Your task to perform on an android device: Open calendar and show me the fourth week of next month Image 0: 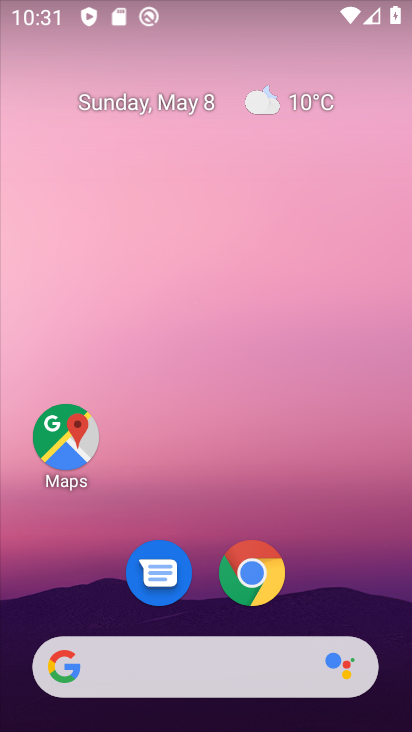
Step 0: drag from (370, 408) to (371, 69)
Your task to perform on an android device: Open calendar and show me the fourth week of next month Image 1: 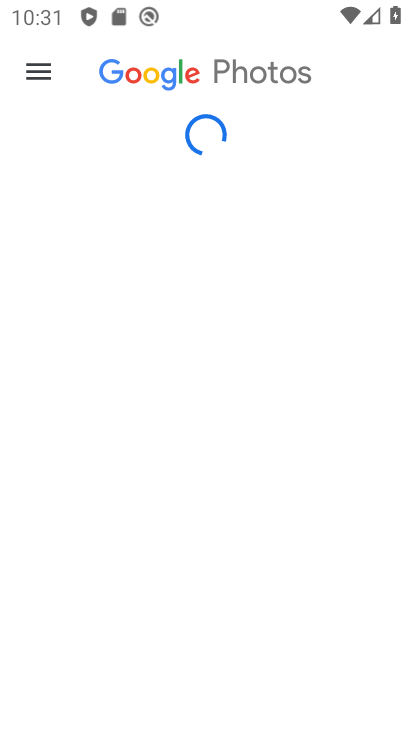
Step 1: press home button
Your task to perform on an android device: Open calendar and show me the fourth week of next month Image 2: 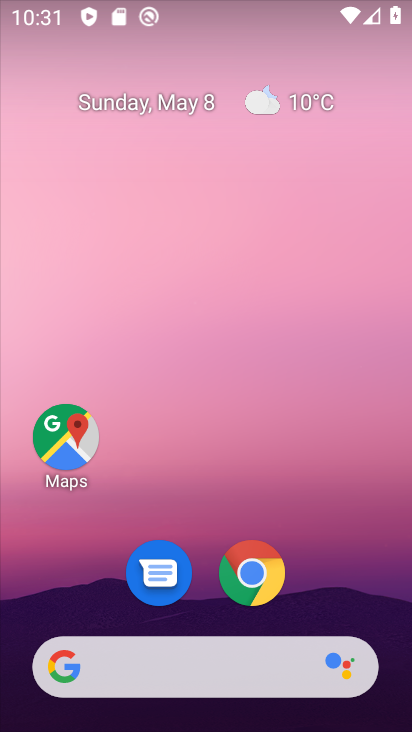
Step 2: drag from (328, 598) to (328, 142)
Your task to perform on an android device: Open calendar and show me the fourth week of next month Image 3: 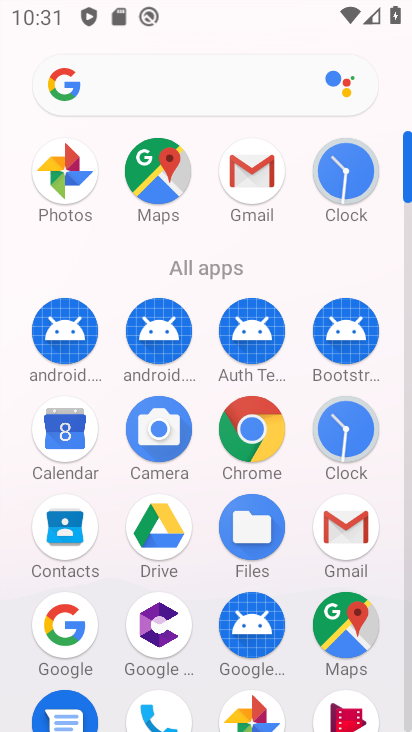
Step 3: click (54, 409)
Your task to perform on an android device: Open calendar and show me the fourth week of next month Image 4: 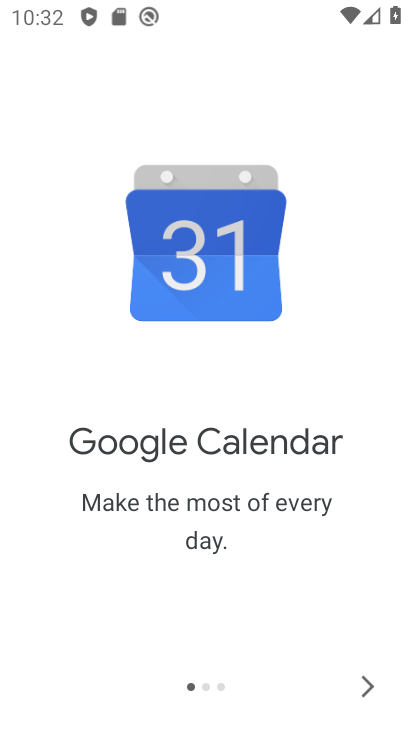
Step 4: click (362, 686)
Your task to perform on an android device: Open calendar and show me the fourth week of next month Image 5: 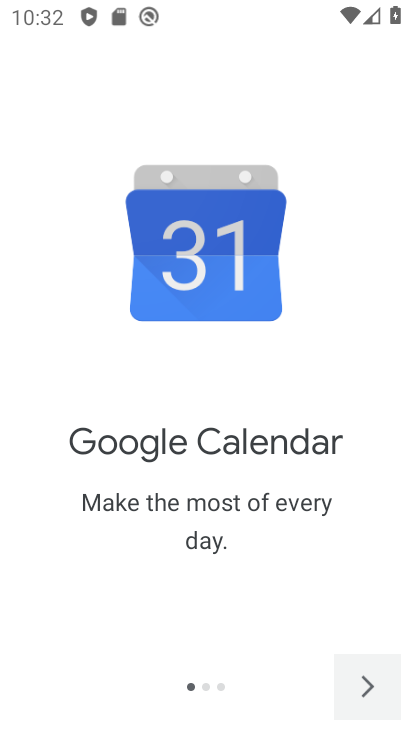
Step 5: click (362, 686)
Your task to perform on an android device: Open calendar and show me the fourth week of next month Image 6: 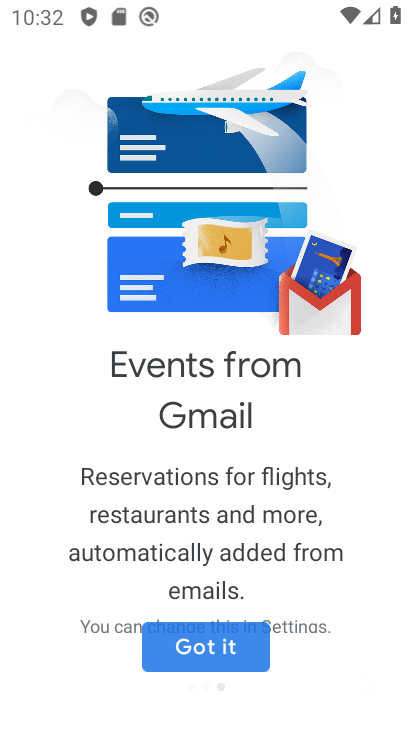
Step 6: click (362, 686)
Your task to perform on an android device: Open calendar and show me the fourth week of next month Image 7: 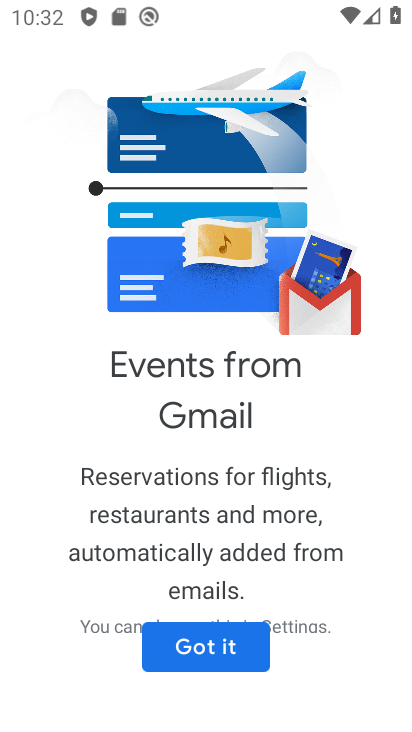
Step 7: click (217, 657)
Your task to perform on an android device: Open calendar and show me the fourth week of next month Image 8: 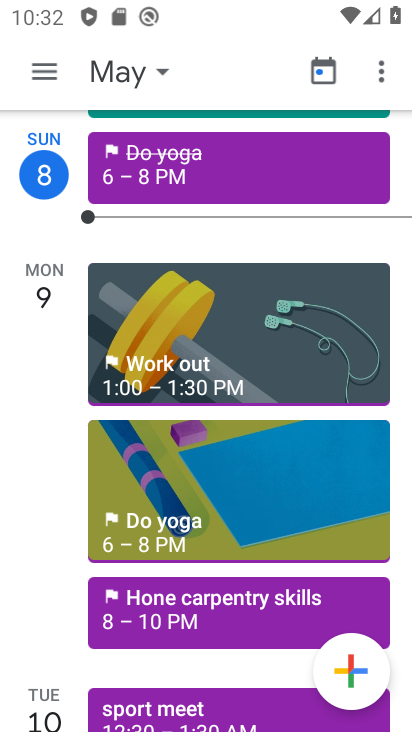
Step 8: click (122, 63)
Your task to perform on an android device: Open calendar and show me the fourth week of next month Image 9: 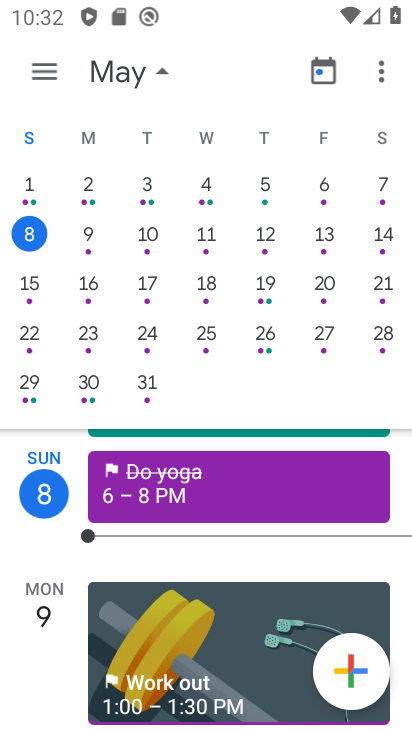
Step 9: drag from (341, 230) to (0, 316)
Your task to perform on an android device: Open calendar and show me the fourth week of next month Image 10: 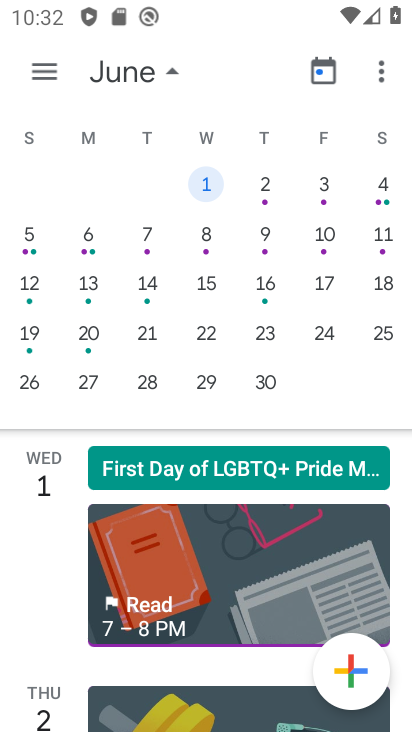
Step 10: click (202, 338)
Your task to perform on an android device: Open calendar and show me the fourth week of next month Image 11: 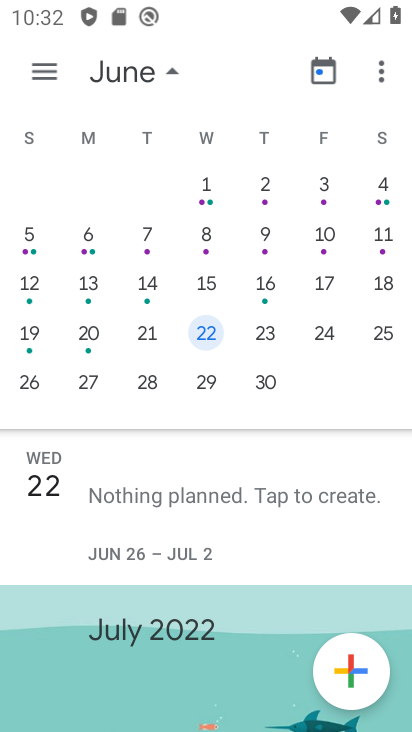
Step 11: task complete